Your task to perform on an android device: show emergency info Image 0: 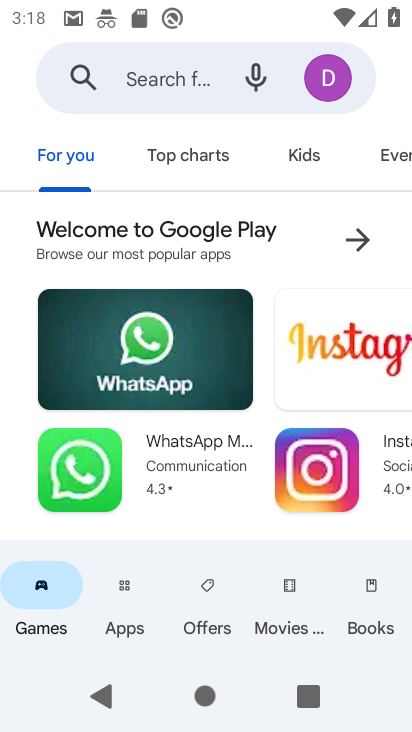
Step 0: press home button
Your task to perform on an android device: show emergency info Image 1: 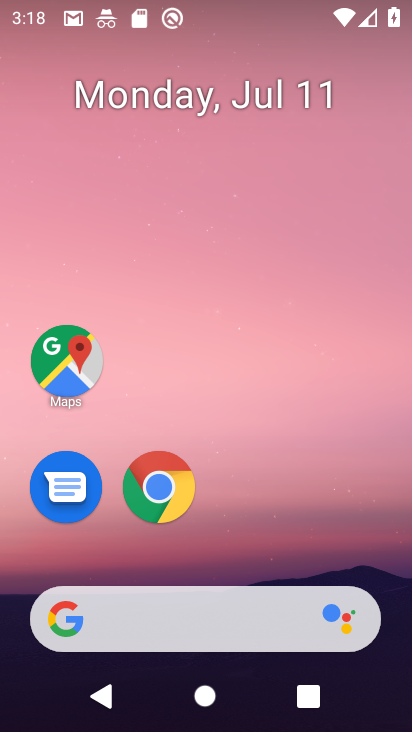
Step 1: drag from (167, 607) to (280, 73)
Your task to perform on an android device: show emergency info Image 2: 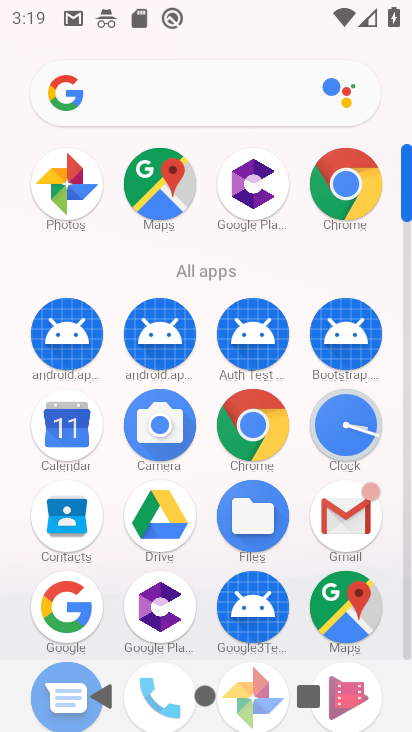
Step 2: drag from (196, 618) to (297, 147)
Your task to perform on an android device: show emergency info Image 3: 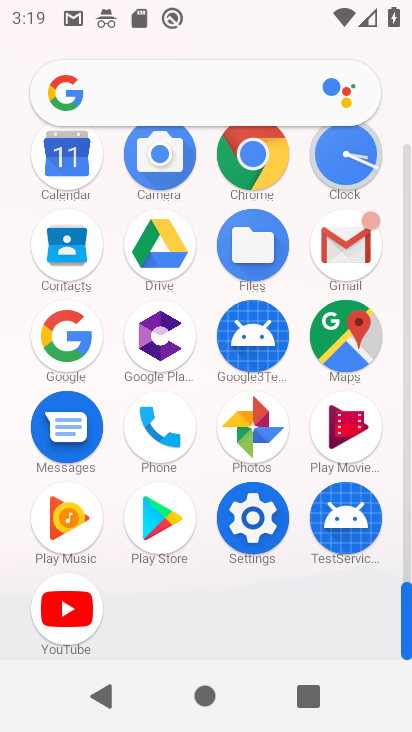
Step 3: click (249, 537)
Your task to perform on an android device: show emergency info Image 4: 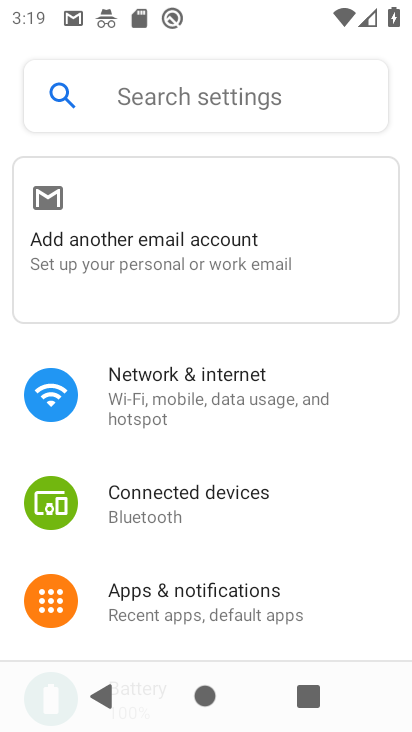
Step 4: drag from (194, 548) to (239, 207)
Your task to perform on an android device: show emergency info Image 5: 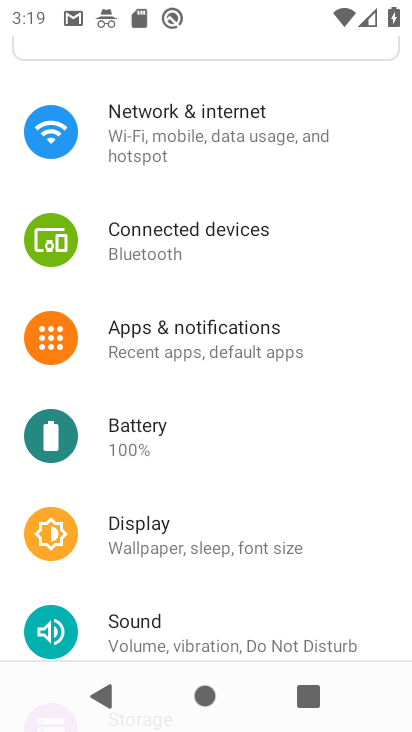
Step 5: drag from (216, 557) to (337, 36)
Your task to perform on an android device: show emergency info Image 6: 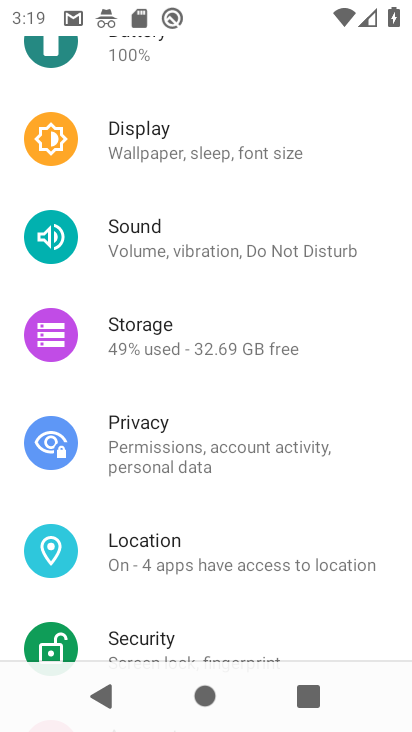
Step 6: drag from (229, 578) to (342, 17)
Your task to perform on an android device: show emergency info Image 7: 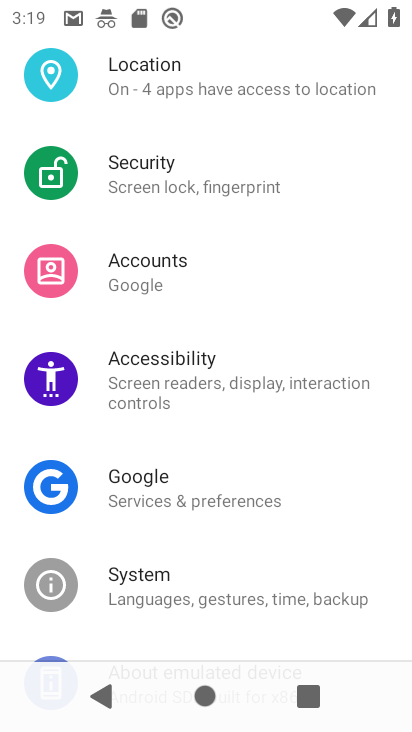
Step 7: drag from (209, 608) to (318, 67)
Your task to perform on an android device: show emergency info Image 8: 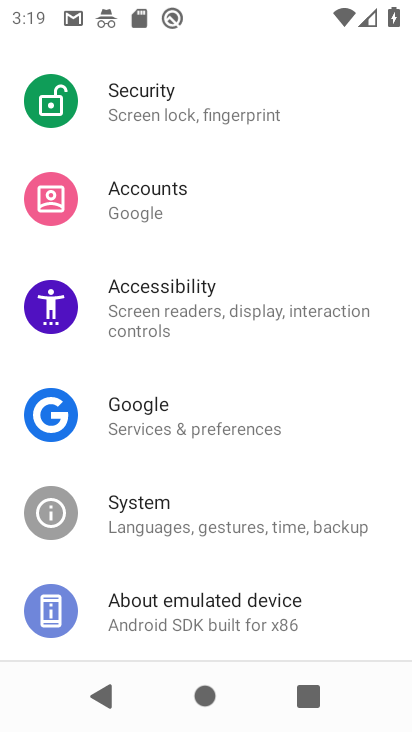
Step 8: click (199, 601)
Your task to perform on an android device: show emergency info Image 9: 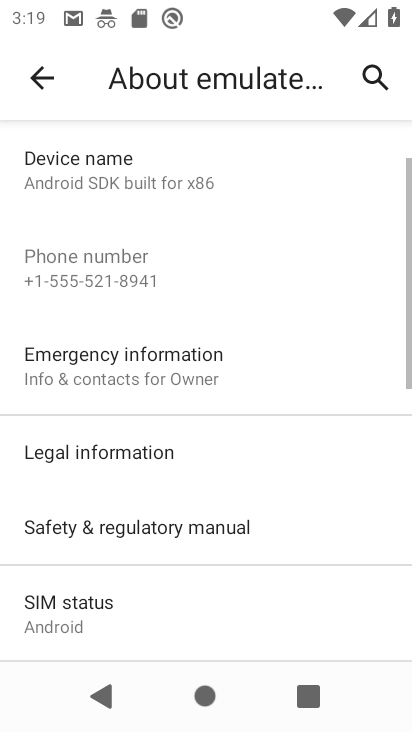
Step 9: click (146, 362)
Your task to perform on an android device: show emergency info Image 10: 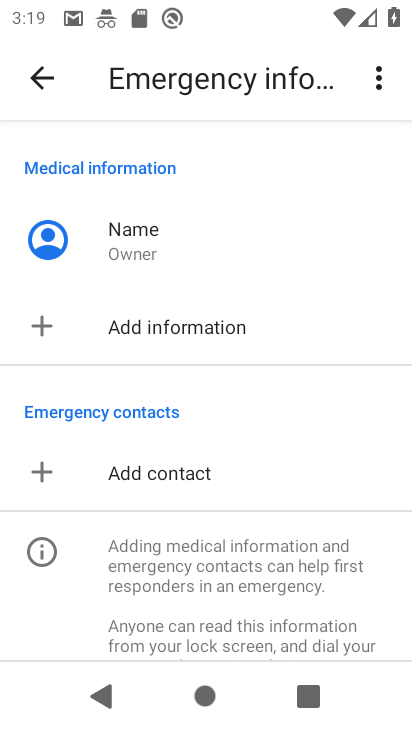
Step 10: task complete